Your task to perform on an android device: What's the weather? Image 0: 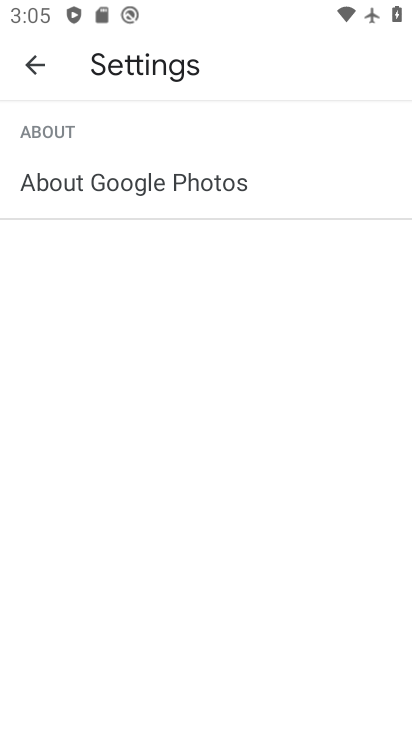
Step 0: press home button
Your task to perform on an android device: What's the weather? Image 1: 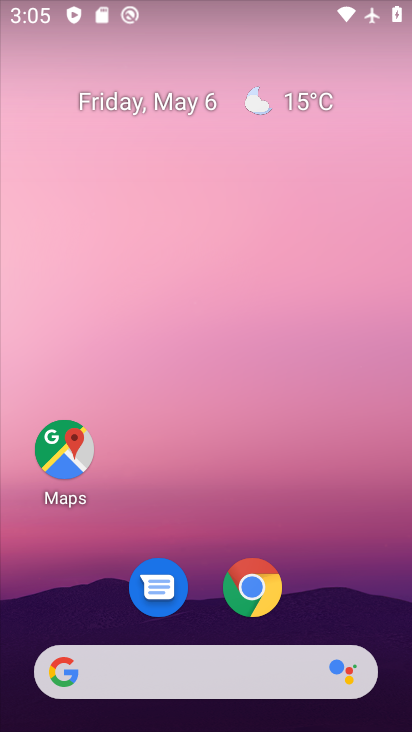
Step 1: click (259, 95)
Your task to perform on an android device: What's the weather? Image 2: 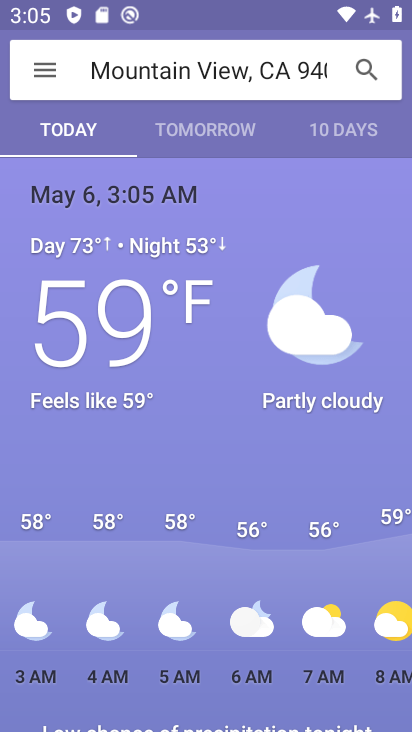
Step 2: task complete